Your task to perform on an android device: Search for bose soundsport free on ebay, select the first entry, add it to the cart, then select checkout. Image 0: 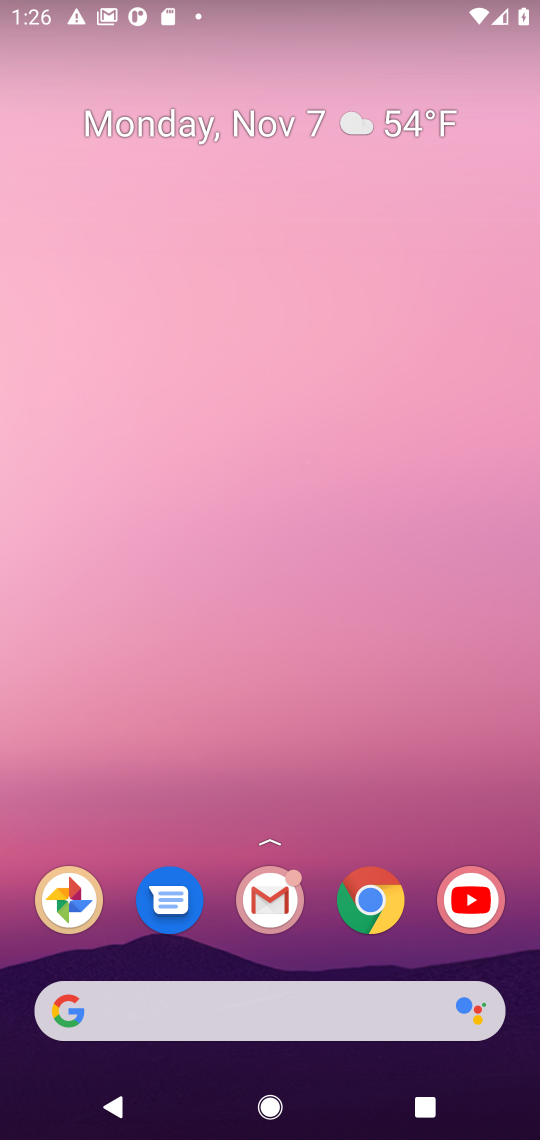
Step 0: click (248, 1001)
Your task to perform on an android device: Search for bose soundsport free on ebay, select the first entry, add it to the cart, then select checkout. Image 1: 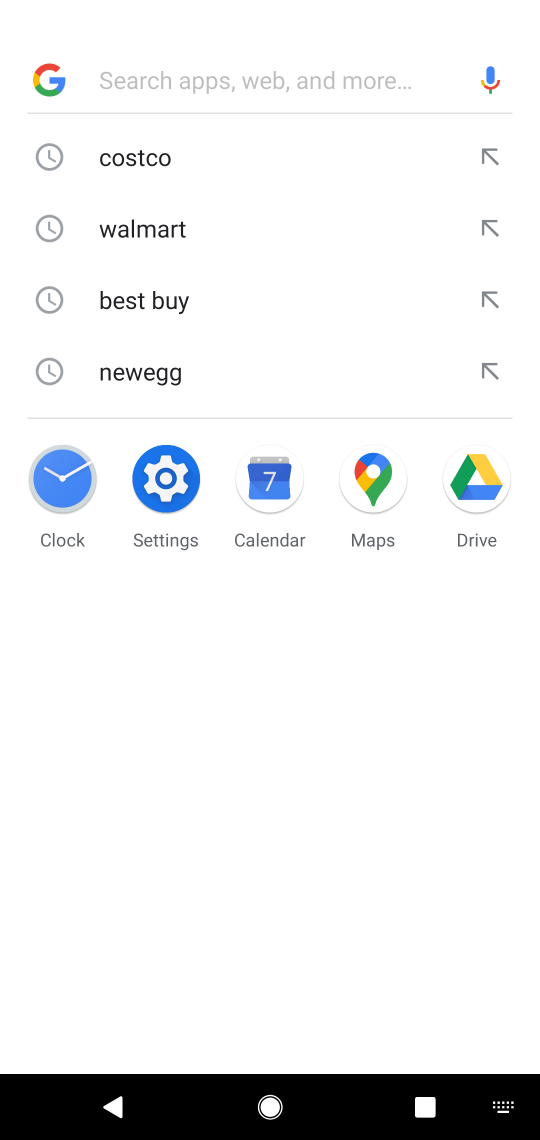
Step 1: type "ebay"
Your task to perform on an android device: Search for bose soundsport free on ebay, select the first entry, add it to the cart, then select checkout. Image 2: 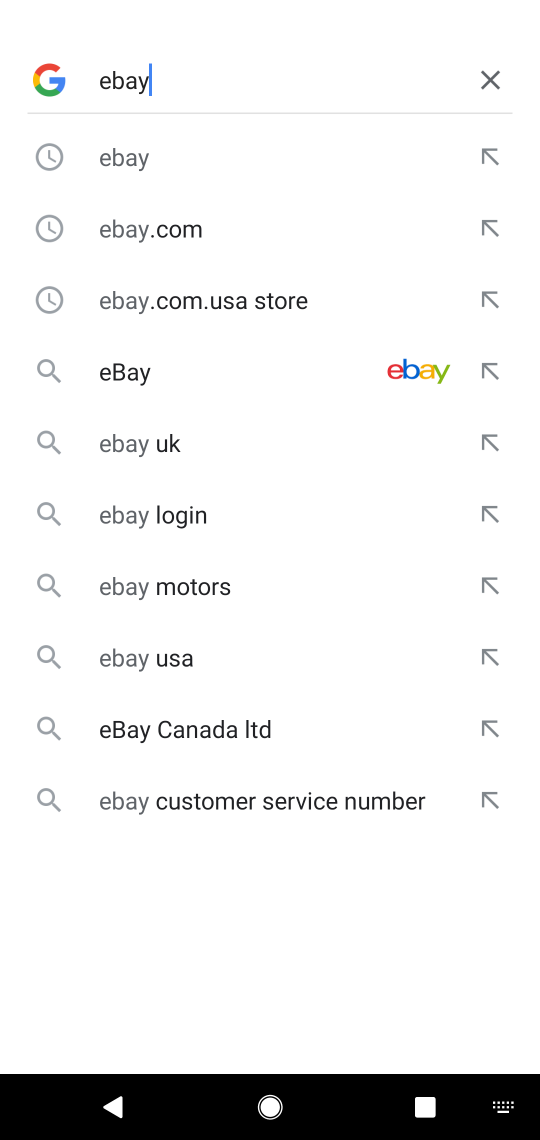
Step 2: click (240, 154)
Your task to perform on an android device: Search for bose soundsport free on ebay, select the first entry, add it to the cart, then select checkout. Image 3: 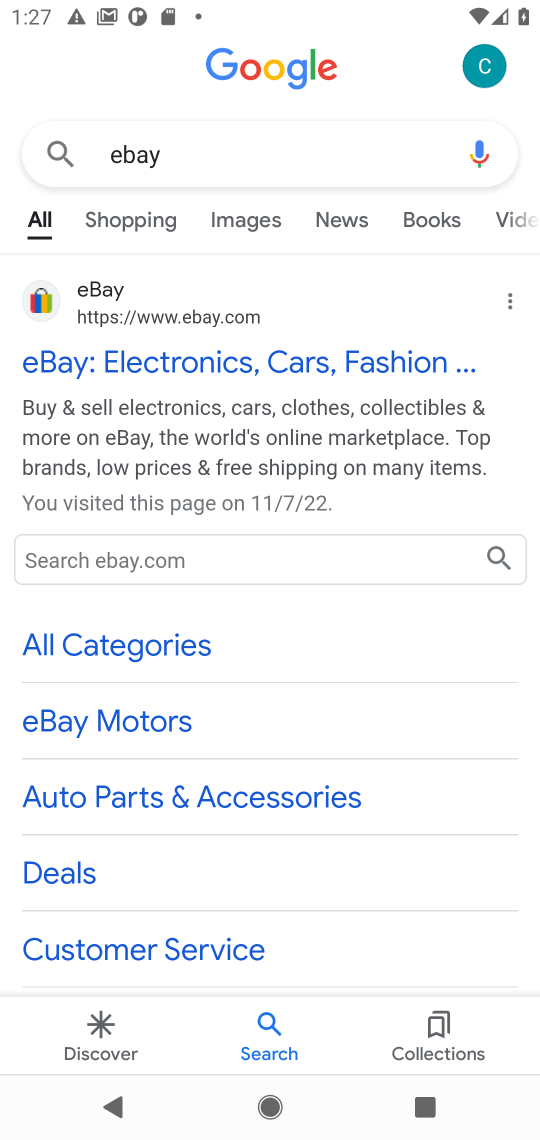
Step 3: click (250, 336)
Your task to perform on an android device: Search for bose soundsport free on ebay, select the first entry, add it to the cart, then select checkout. Image 4: 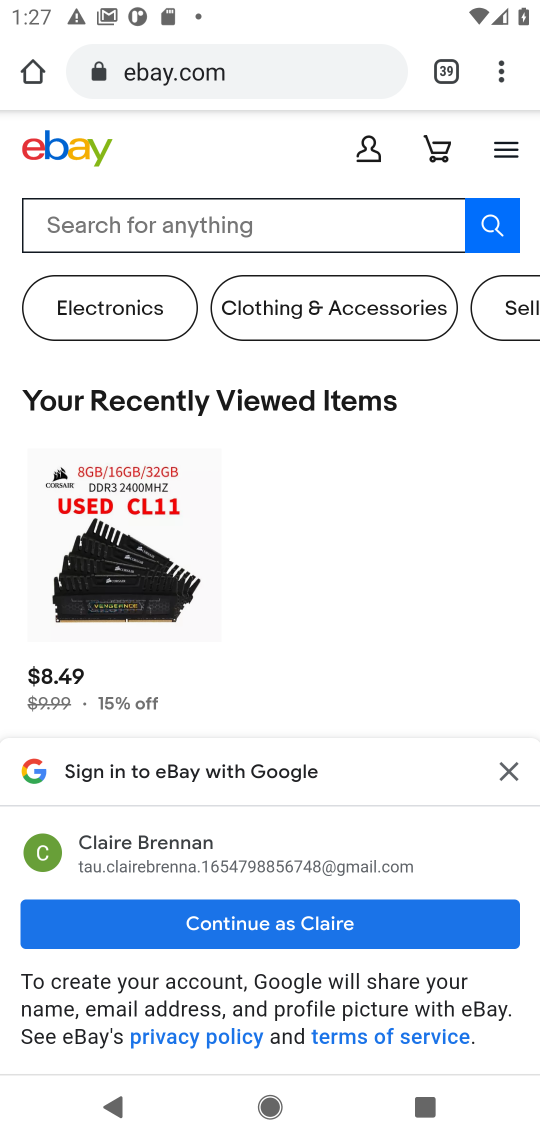
Step 4: task complete